Your task to perform on an android device: choose inbox layout in the gmail app Image 0: 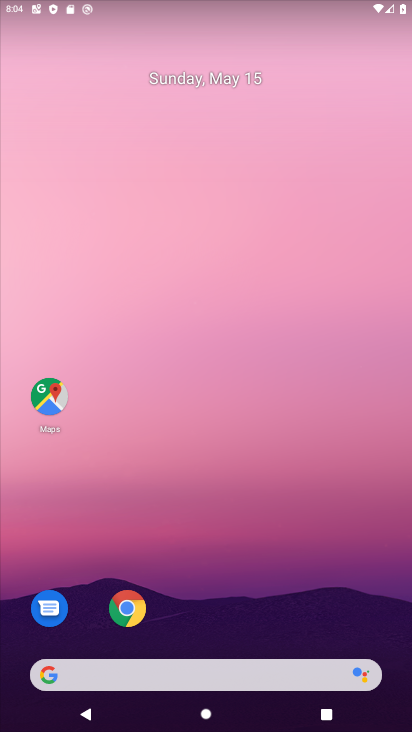
Step 0: drag from (257, 610) to (141, 156)
Your task to perform on an android device: choose inbox layout in the gmail app Image 1: 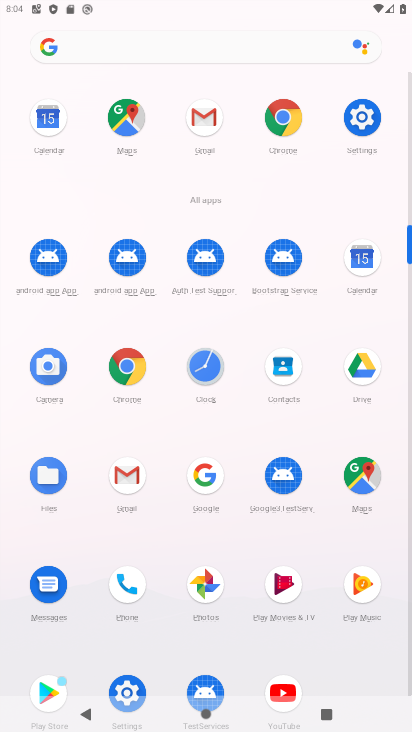
Step 1: click (122, 481)
Your task to perform on an android device: choose inbox layout in the gmail app Image 2: 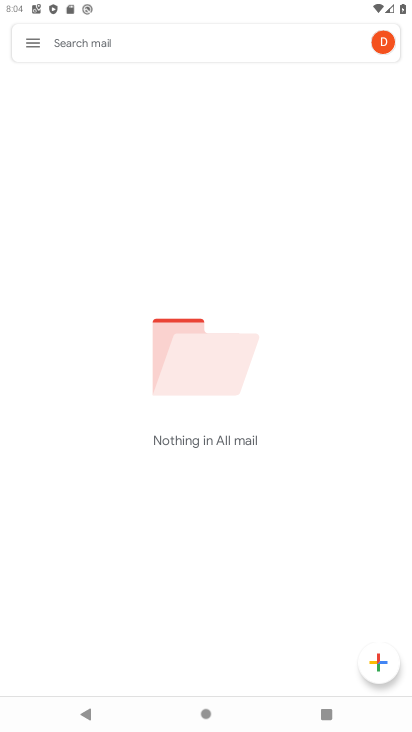
Step 2: press back button
Your task to perform on an android device: choose inbox layout in the gmail app Image 3: 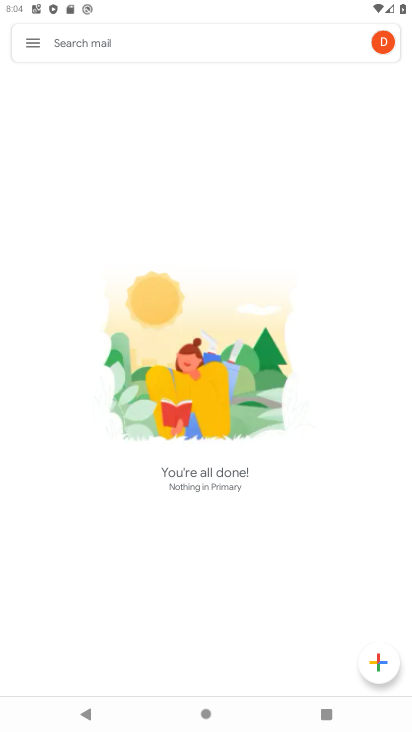
Step 3: click (27, 34)
Your task to perform on an android device: choose inbox layout in the gmail app Image 4: 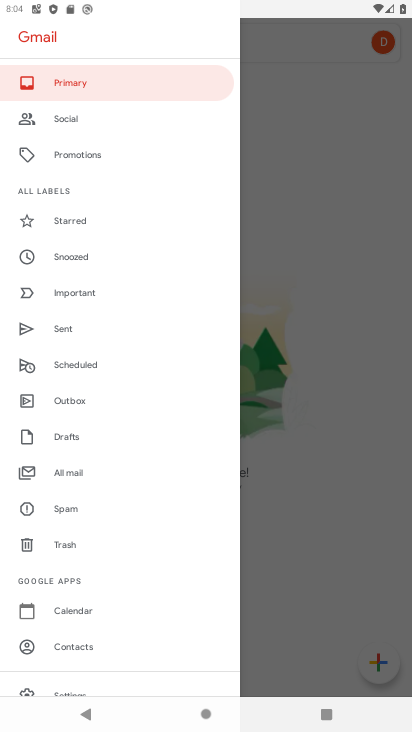
Step 4: click (62, 472)
Your task to perform on an android device: choose inbox layout in the gmail app Image 5: 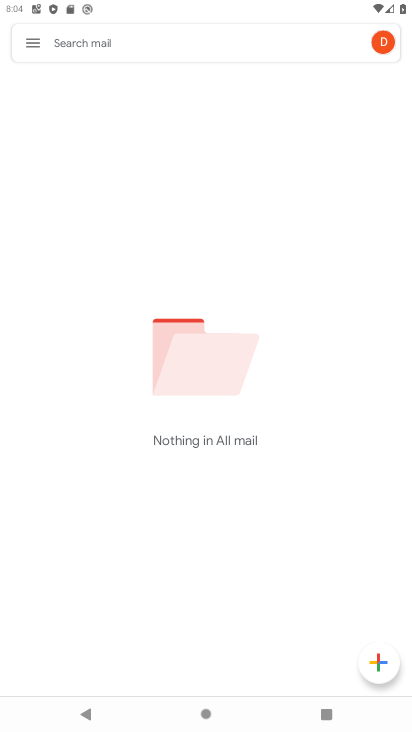
Step 5: task complete